Your task to perform on an android device: What's the news in Trinidad and Tobago? Image 0: 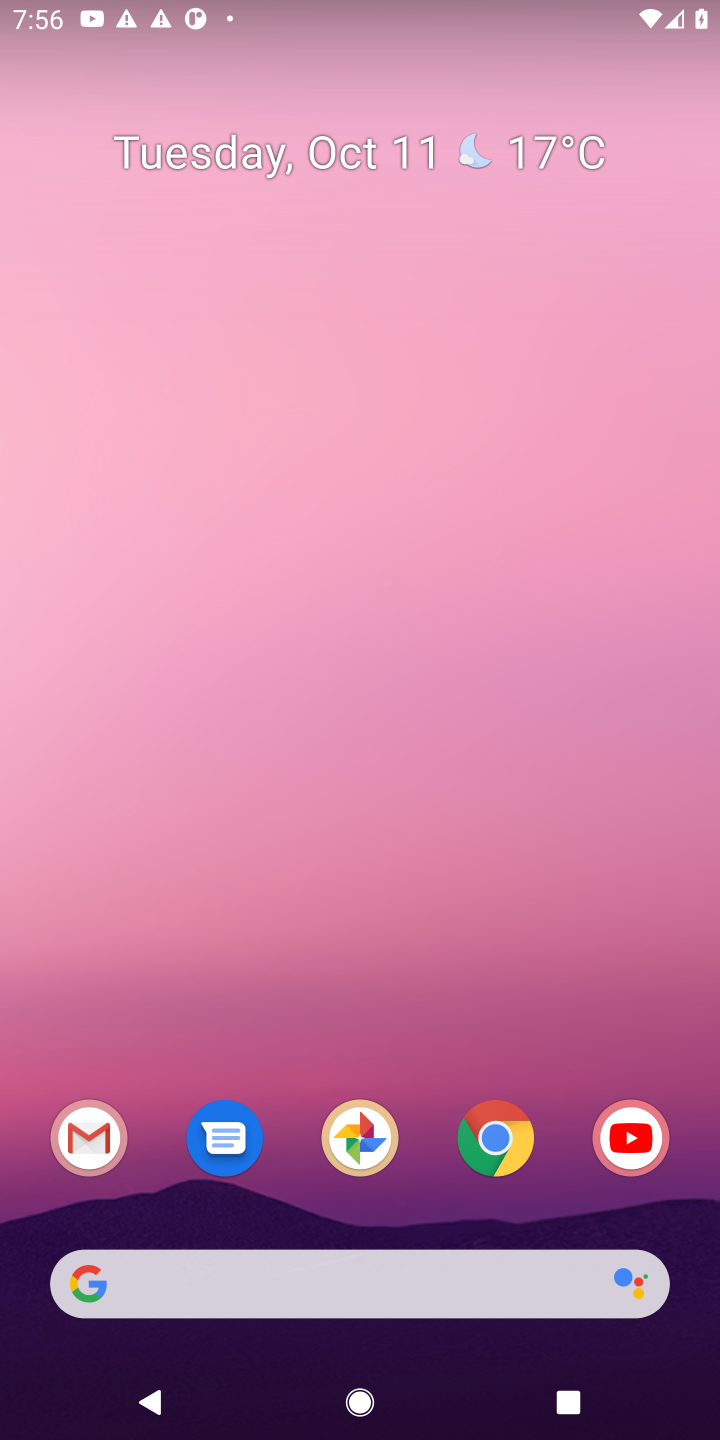
Step 0: click (448, 1269)
Your task to perform on an android device: What's the news in Trinidad and Tobago? Image 1: 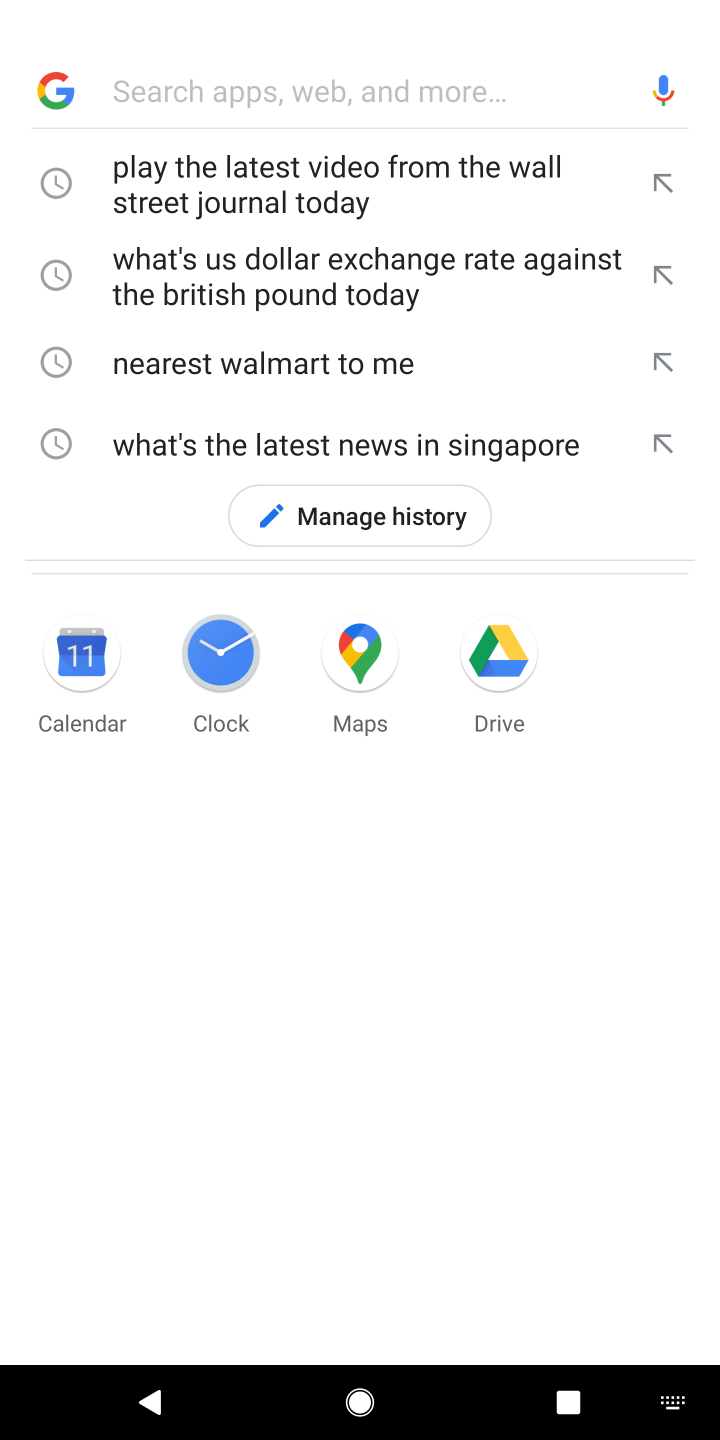
Step 1: type "What's the news in Trinidad and Tobago?"
Your task to perform on an android device: What's the news in Trinidad and Tobago? Image 2: 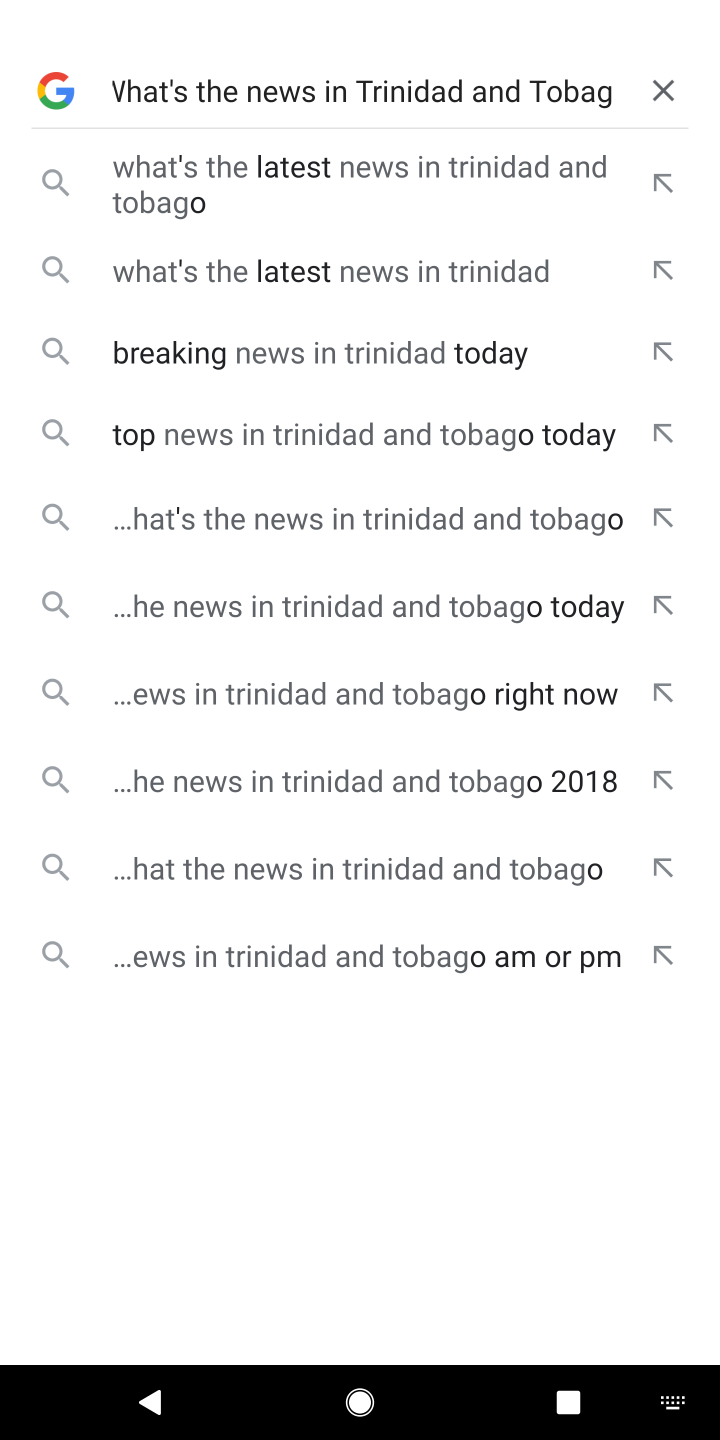
Step 2: click (243, 173)
Your task to perform on an android device: What's the news in Trinidad and Tobago? Image 3: 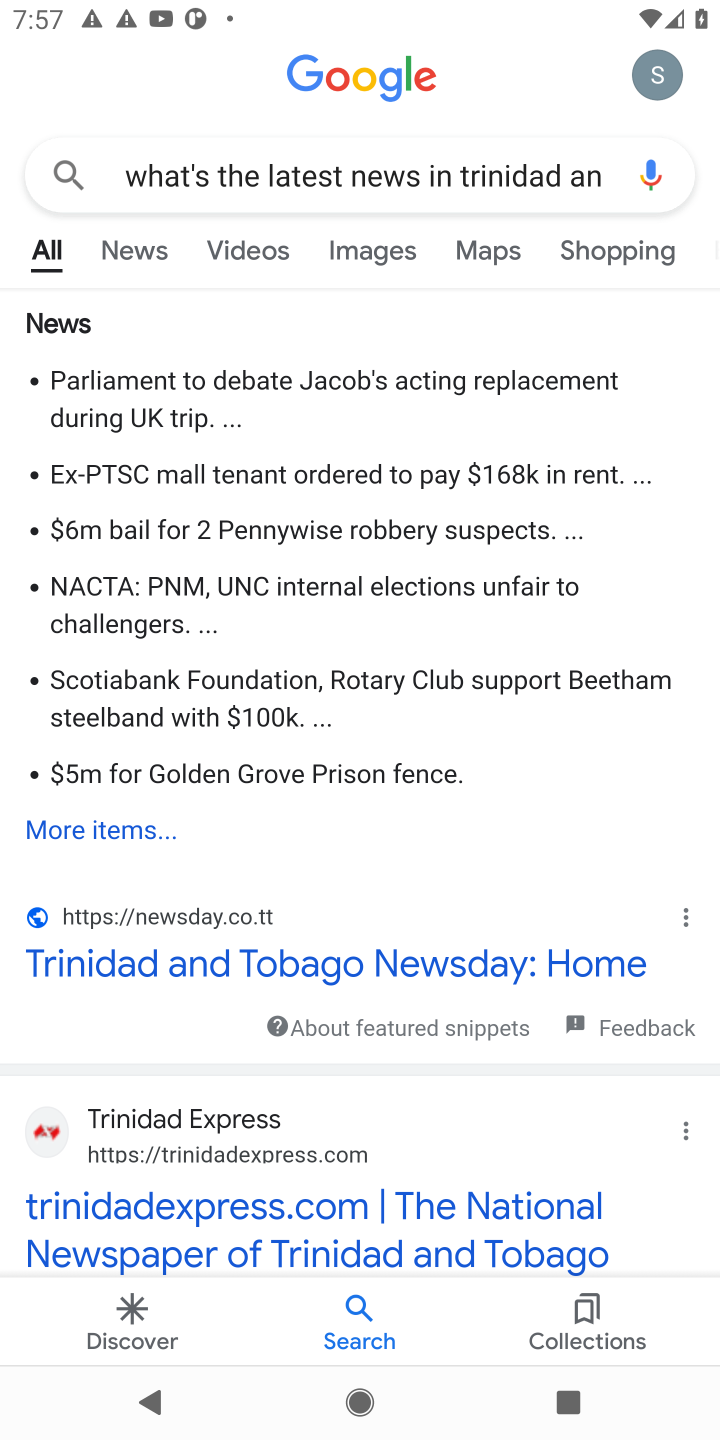
Step 3: click (373, 967)
Your task to perform on an android device: What's the news in Trinidad and Tobago? Image 4: 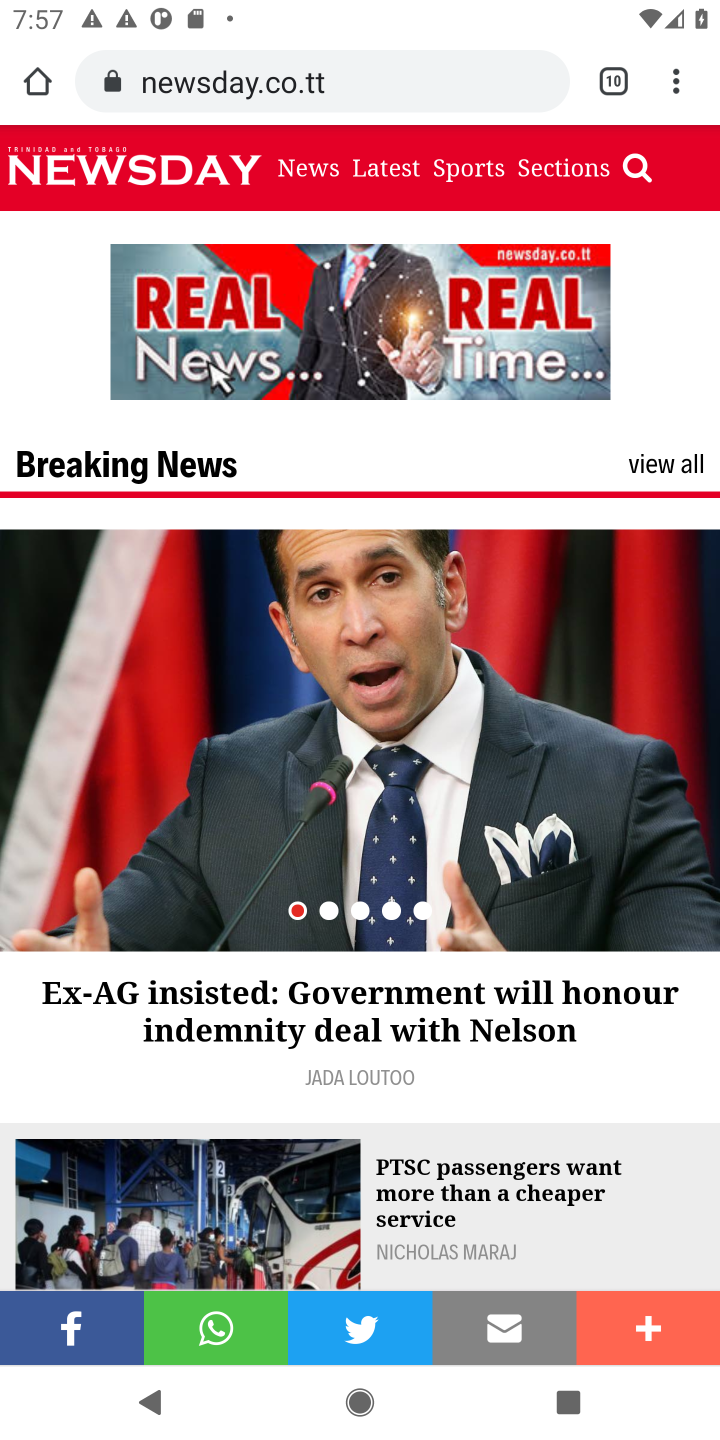
Step 4: click (406, 660)
Your task to perform on an android device: What's the news in Trinidad and Tobago? Image 5: 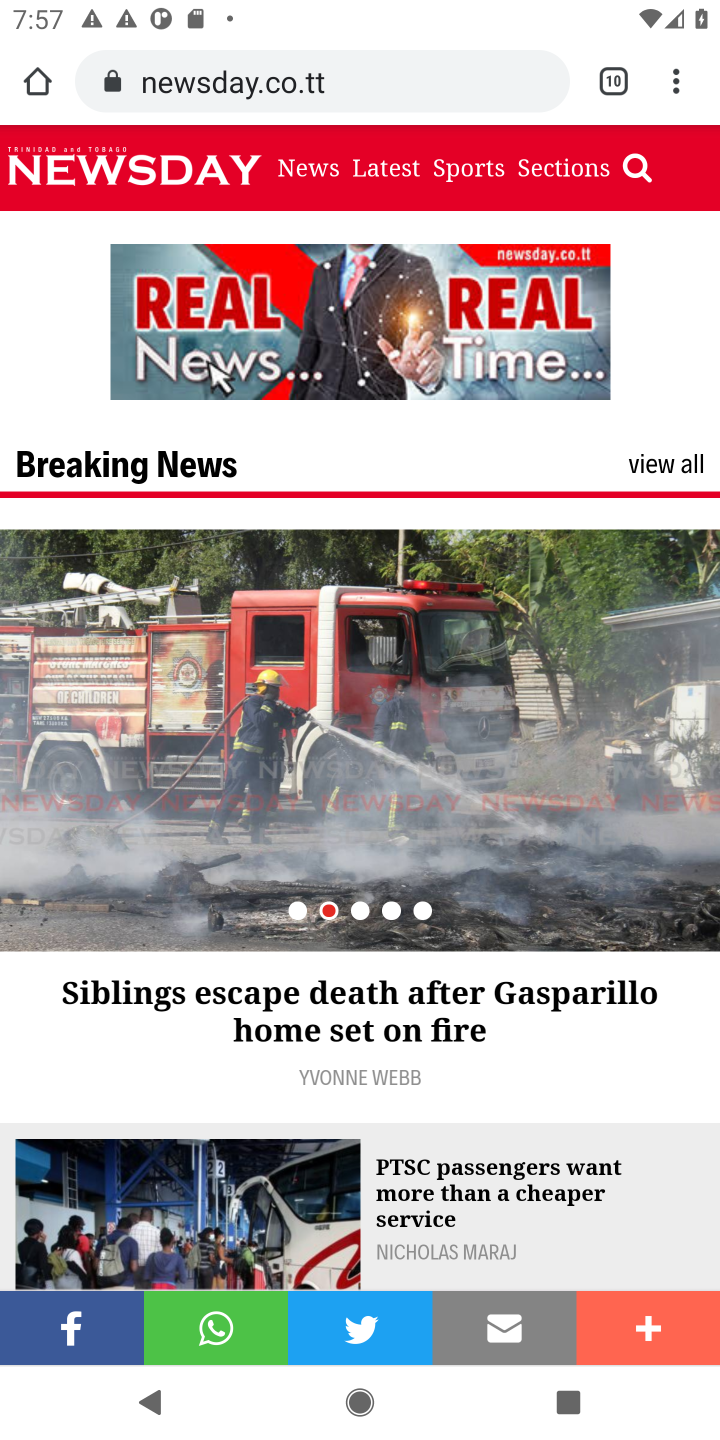
Step 5: task complete